Your task to perform on an android device: add a label to a message in the gmail app Image 0: 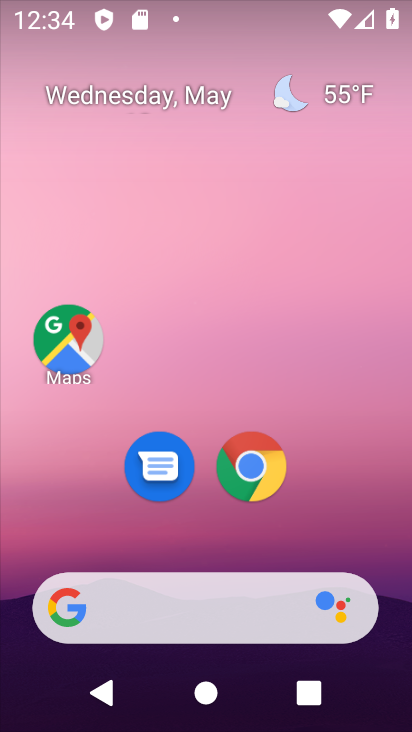
Step 0: drag from (334, 527) to (256, 149)
Your task to perform on an android device: add a label to a message in the gmail app Image 1: 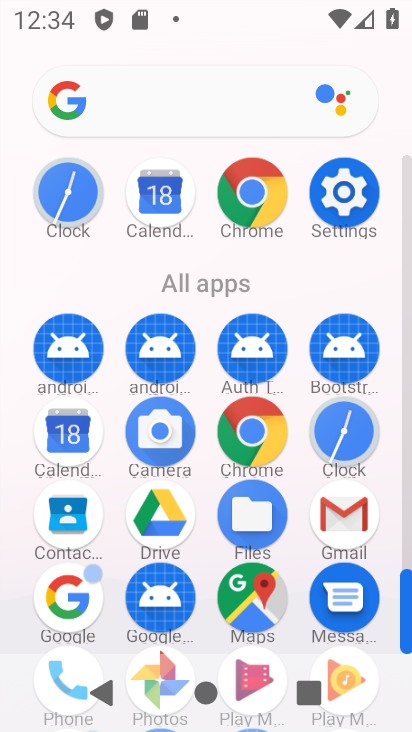
Step 1: drag from (201, 478) to (201, 310)
Your task to perform on an android device: add a label to a message in the gmail app Image 2: 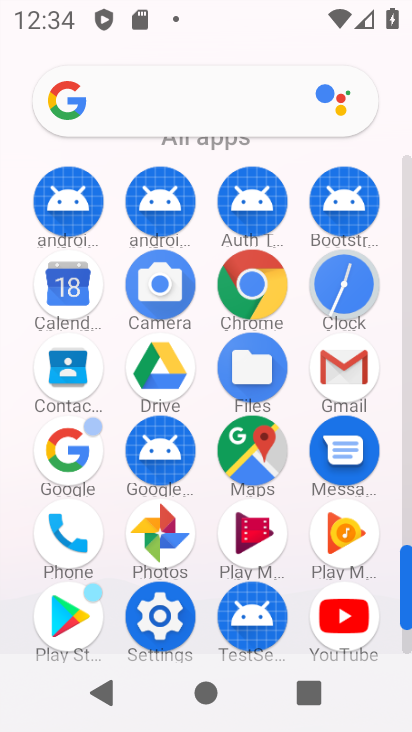
Step 2: click (340, 367)
Your task to perform on an android device: add a label to a message in the gmail app Image 3: 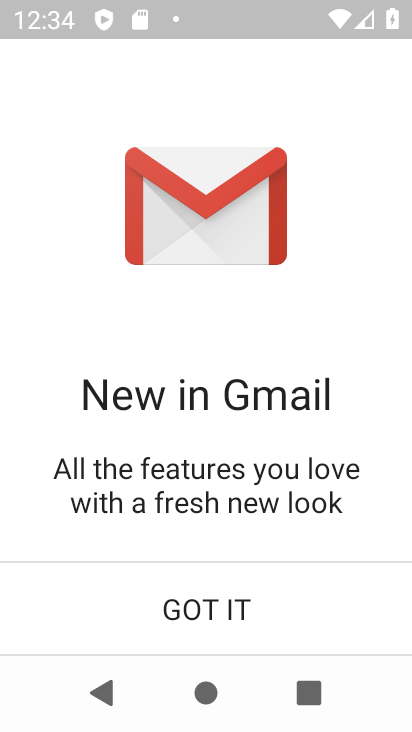
Step 3: click (211, 605)
Your task to perform on an android device: add a label to a message in the gmail app Image 4: 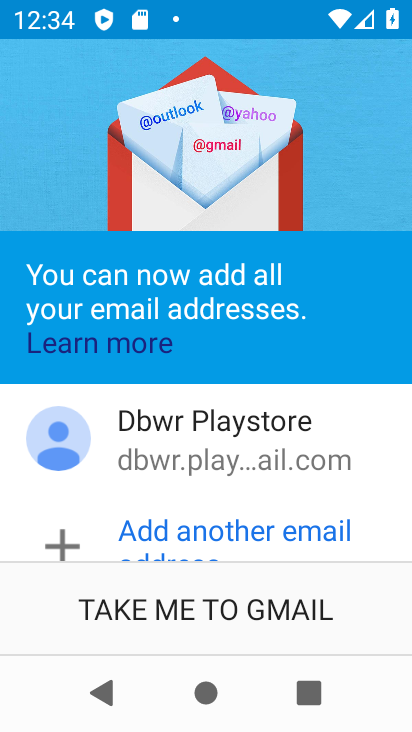
Step 4: click (211, 605)
Your task to perform on an android device: add a label to a message in the gmail app Image 5: 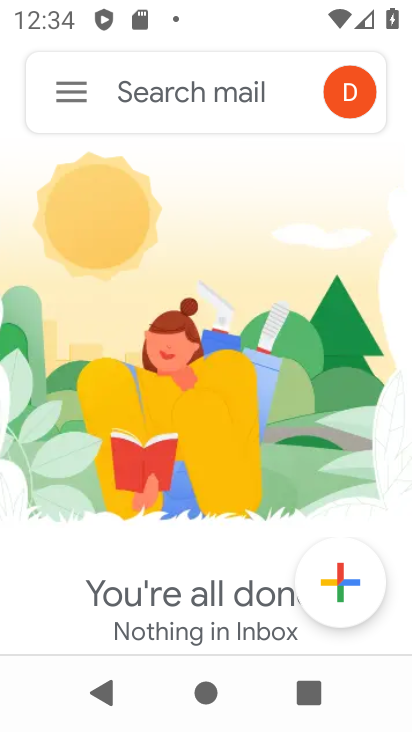
Step 5: click (69, 92)
Your task to perform on an android device: add a label to a message in the gmail app Image 6: 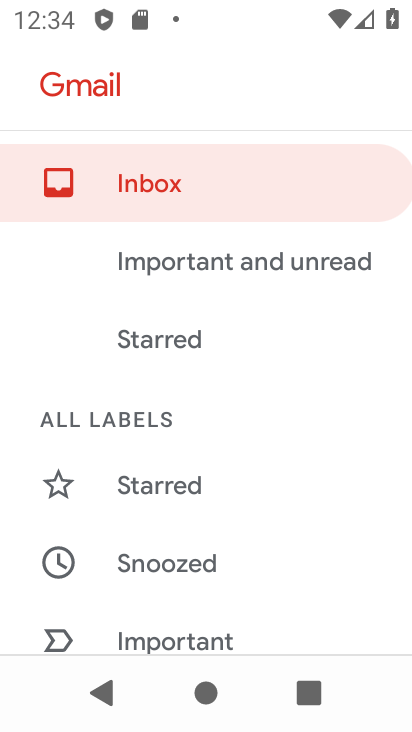
Step 6: drag from (146, 372) to (165, 289)
Your task to perform on an android device: add a label to a message in the gmail app Image 7: 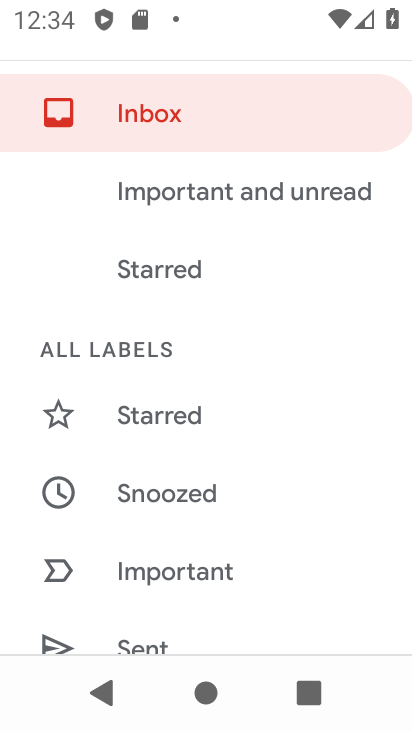
Step 7: click (182, 485)
Your task to perform on an android device: add a label to a message in the gmail app Image 8: 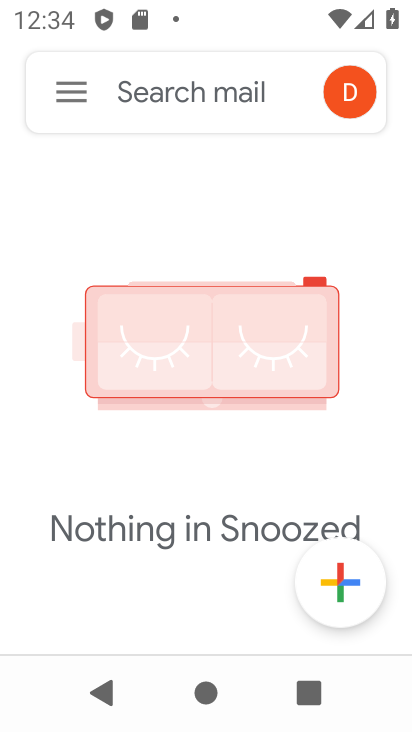
Step 8: task complete